Your task to perform on an android device: manage bookmarks in the chrome app Image 0: 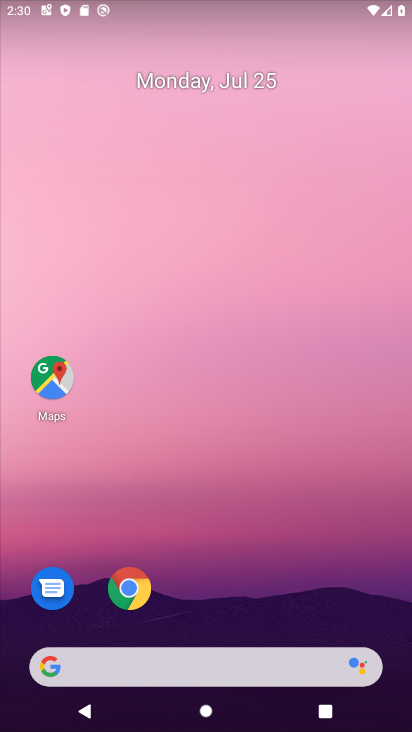
Step 0: click (286, 151)
Your task to perform on an android device: manage bookmarks in the chrome app Image 1: 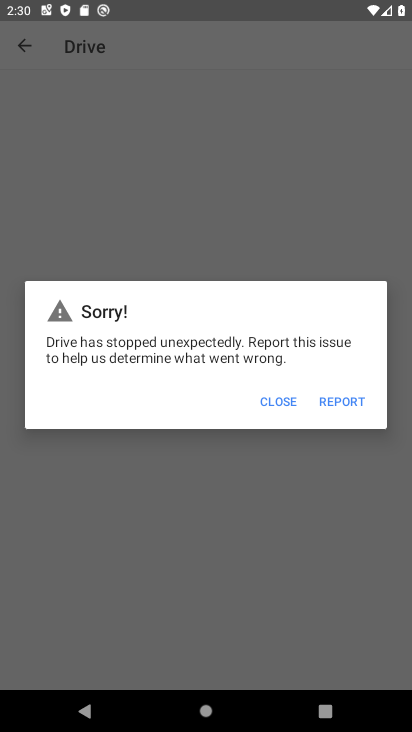
Step 1: click (277, 397)
Your task to perform on an android device: manage bookmarks in the chrome app Image 2: 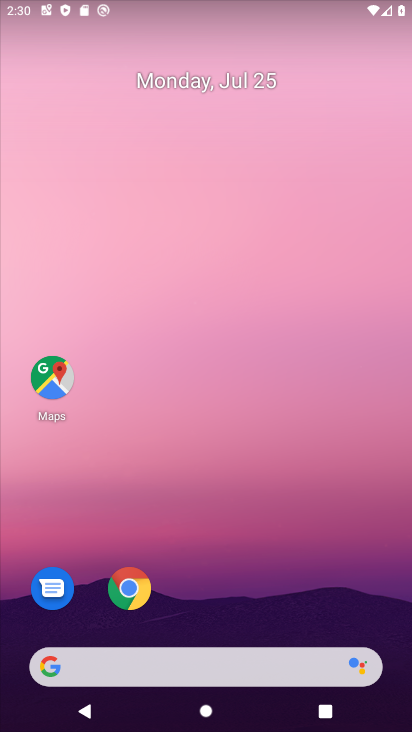
Step 2: click (124, 598)
Your task to perform on an android device: manage bookmarks in the chrome app Image 3: 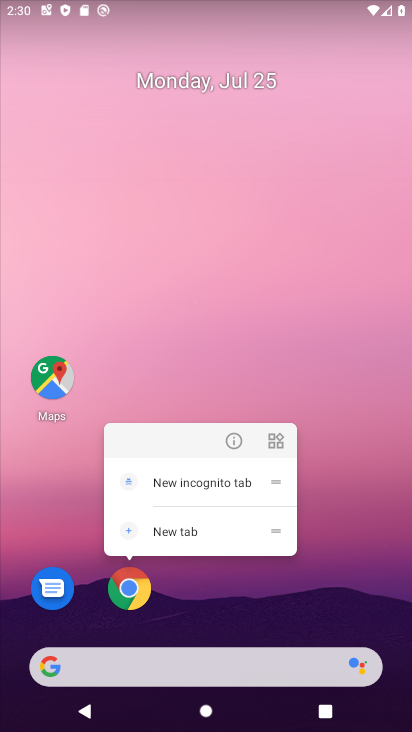
Step 3: click (139, 581)
Your task to perform on an android device: manage bookmarks in the chrome app Image 4: 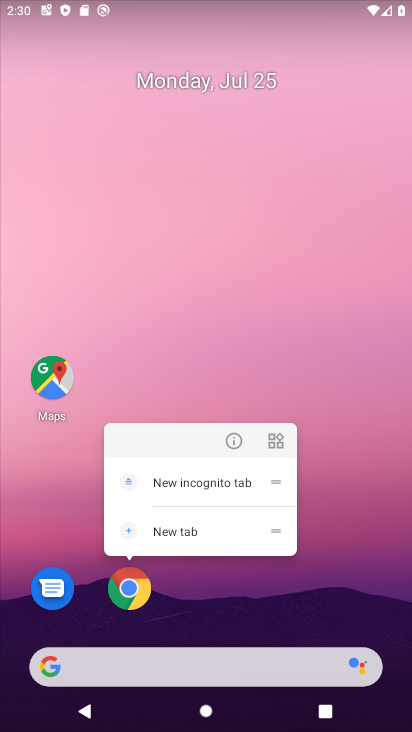
Step 4: click (165, 330)
Your task to perform on an android device: manage bookmarks in the chrome app Image 5: 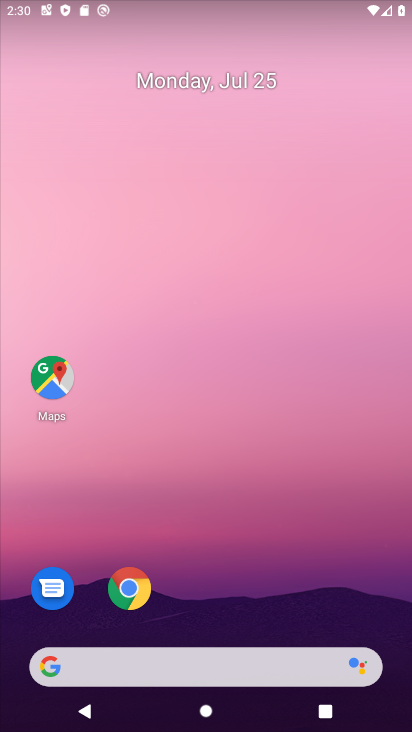
Step 5: click (123, 588)
Your task to perform on an android device: manage bookmarks in the chrome app Image 6: 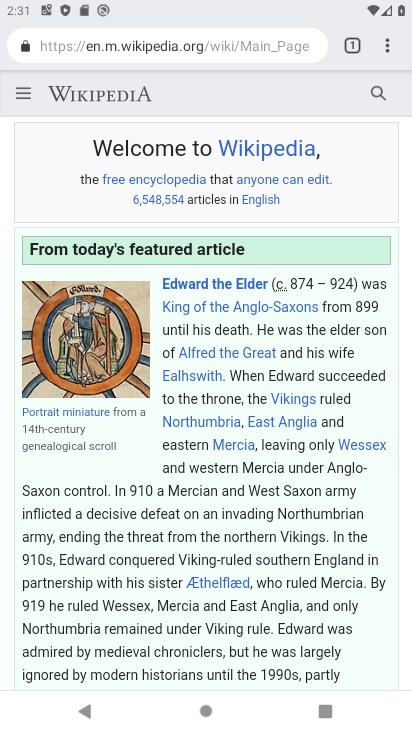
Step 6: click (25, 94)
Your task to perform on an android device: manage bookmarks in the chrome app Image 7: 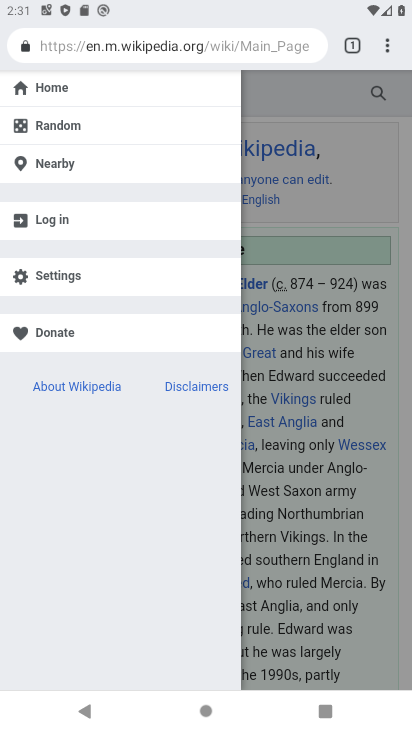
Step 7: click (389, 55)
Your task to perform on an android device: manage bookmarks in the chrome app Image 8: 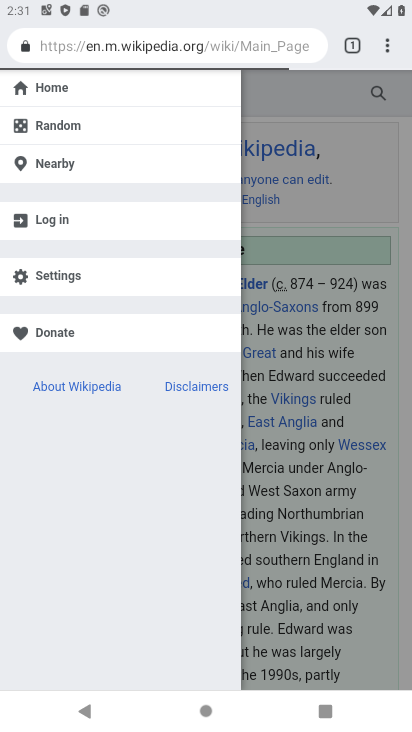
Step 8: click (389, 51)
Your task to perform on an android device: manage bookmarks in the chrome app Image 9: 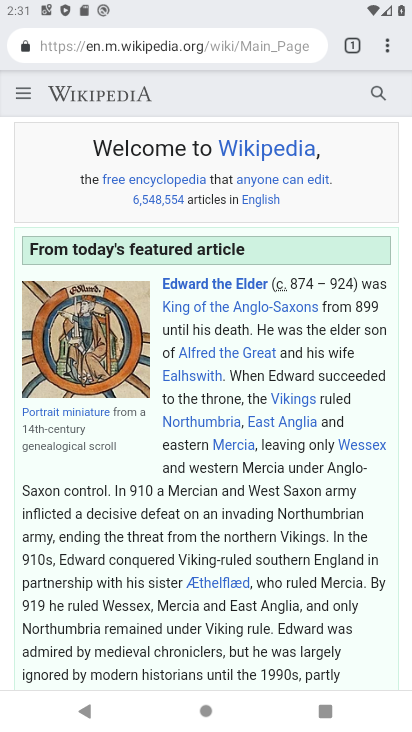
Step 9: click (389, 51)
Your task to perform on an android device: manage bookmarks in the chrome app Image 10: 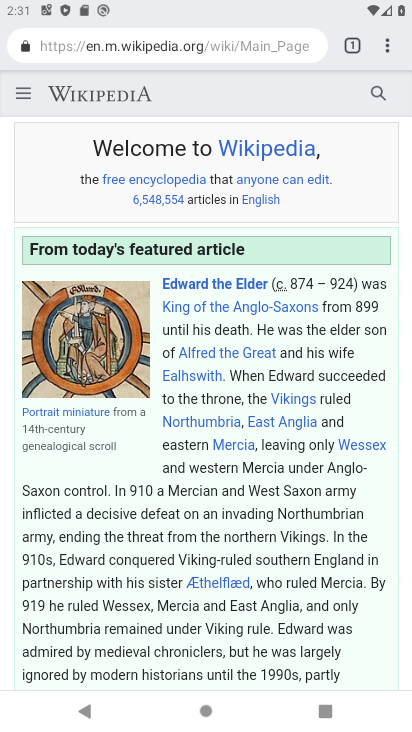
Step 10: click (387, 46)
Your task to perform on an android device: manage bookmarks in the chrome app Image 11: 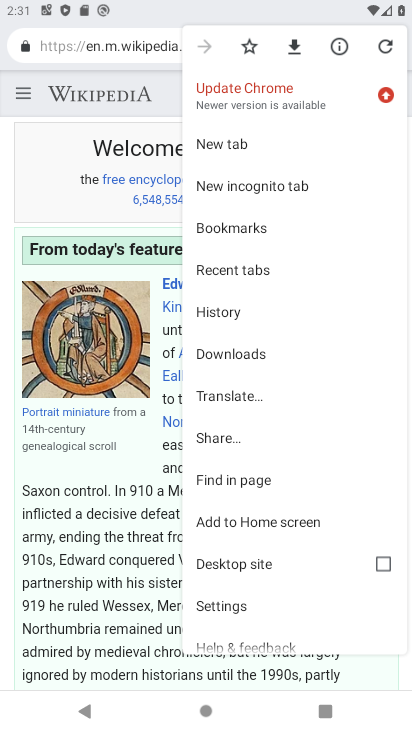
Step 11: click (225, 230)
Your task to perform on an android device: manage bookmarks in the chrome app Image 12: 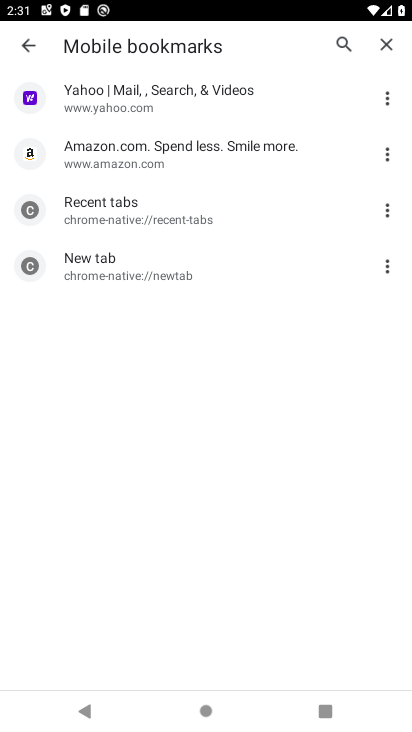
Step 12: click (391, 258)
Your task to perform on an android device: manage bookmarks in the chrome app Image 13: 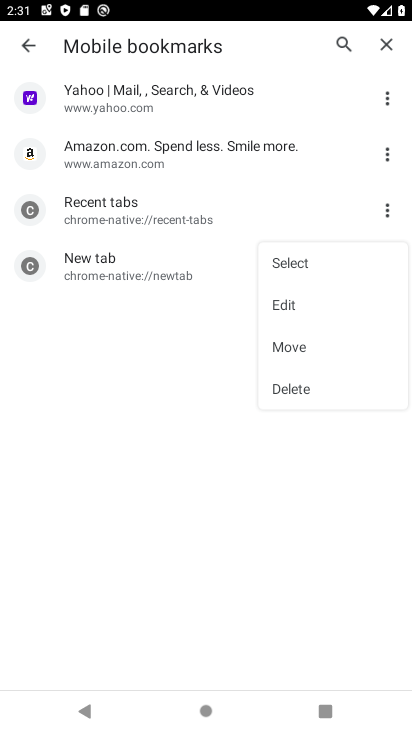
Step 13: click (305, 389)
Your task to perform on an android device: manage bookmarks in the chrome app Image 14: 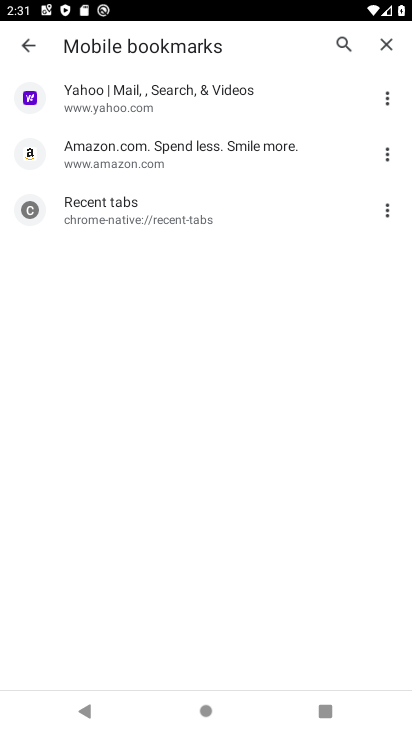
Step 14: task complete